Your task to perform on an android device: stop showing notifications on the lock screen Image 0: 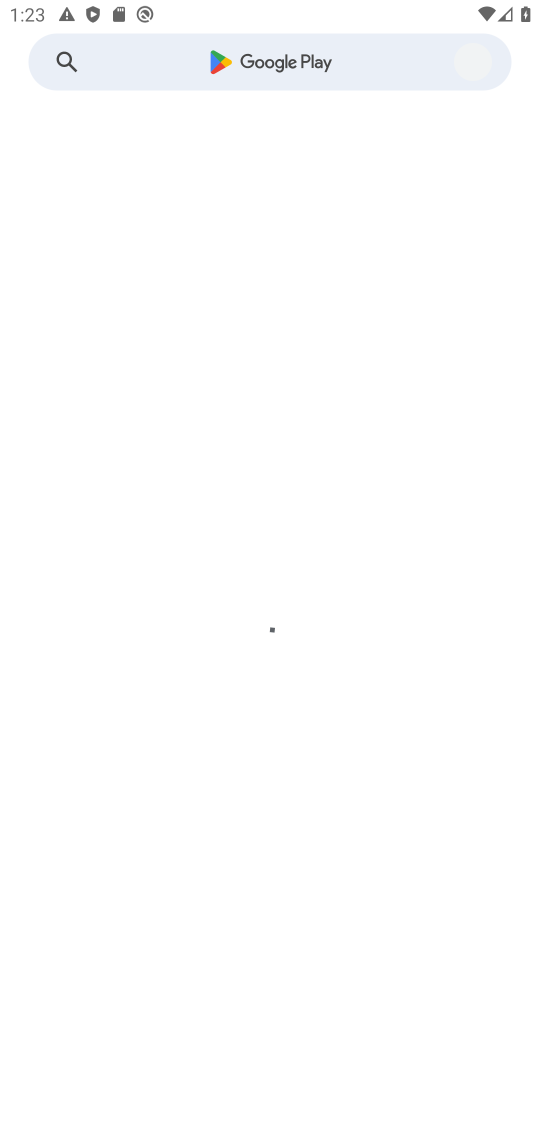
Step 0: press home button
Your task to perform on an android device: stop showing notifications on the lock screen Image 1: 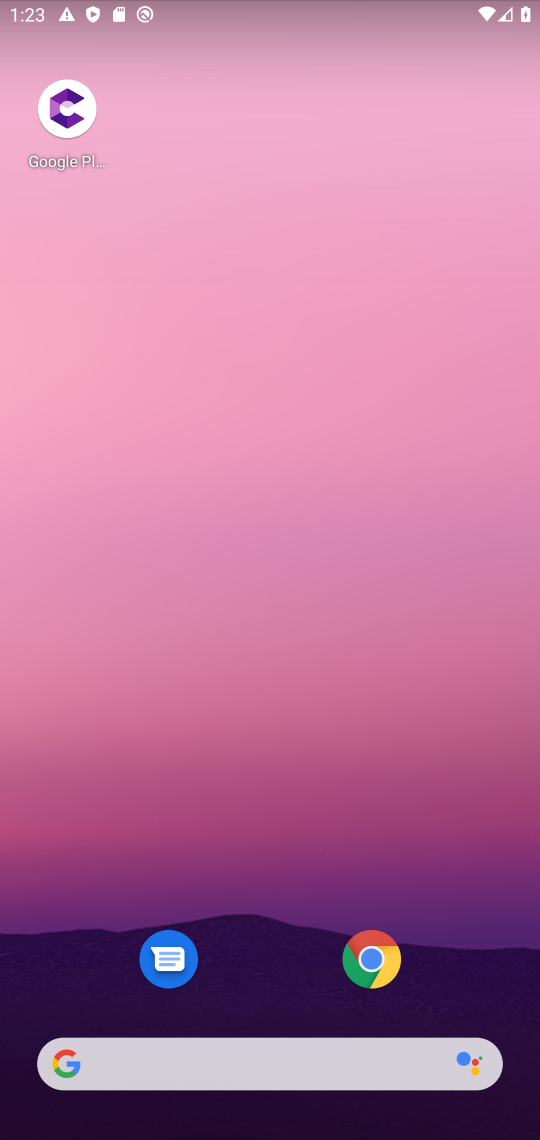
Step 1: click (292, 511)
Your task to perform on an android device: stop showing notifications on the lock screen Image 2: 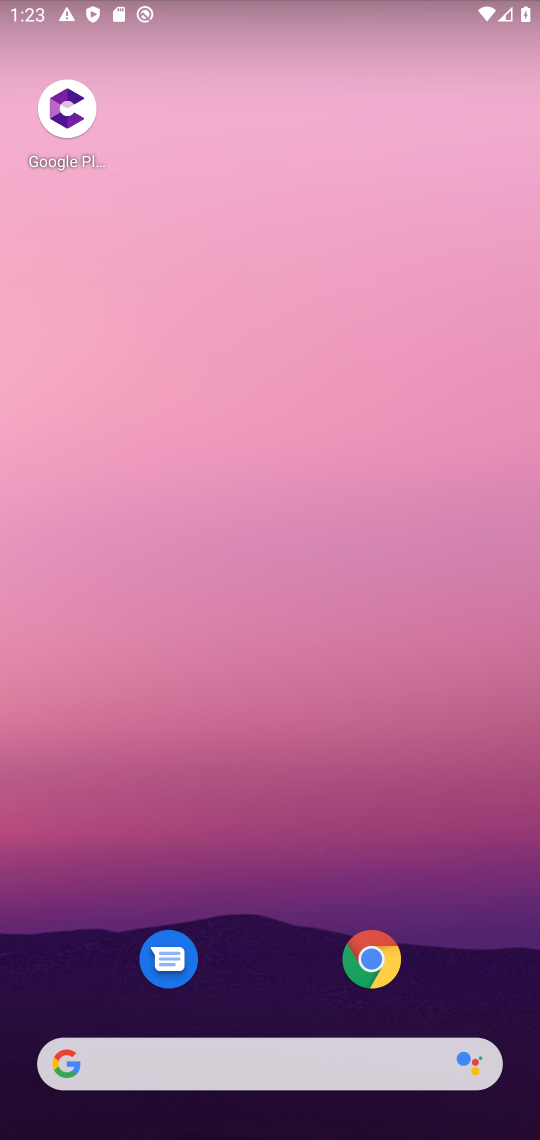
Step 2: click (189, 637)
Your task to perform on an android device: stop showing notifications on the lock screen Image 3: 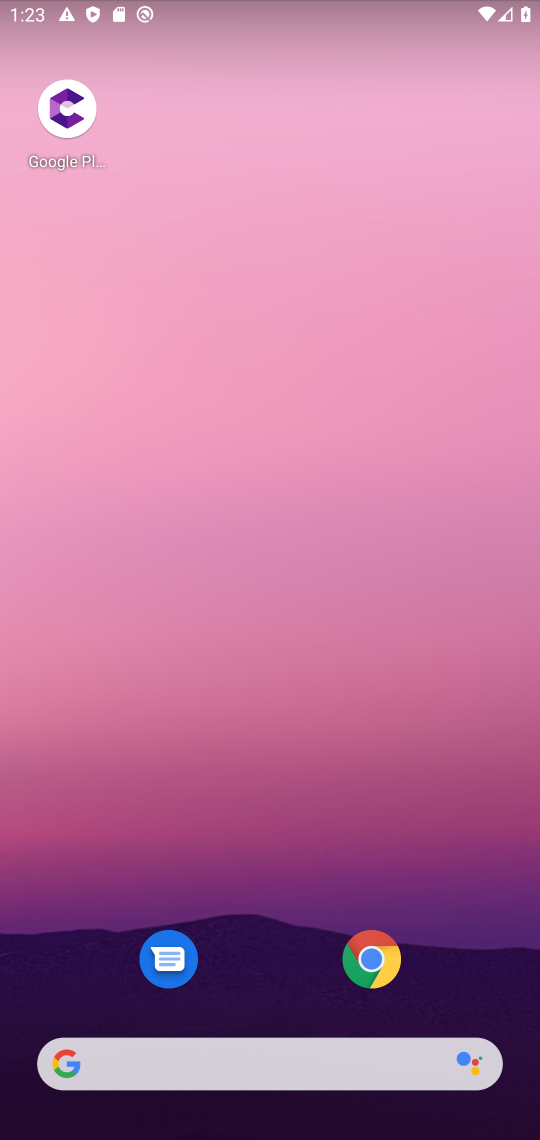
Step 3: click (267, 15)
Your task to perform on an android device: stop showing notifications on the lock screen Image 4: 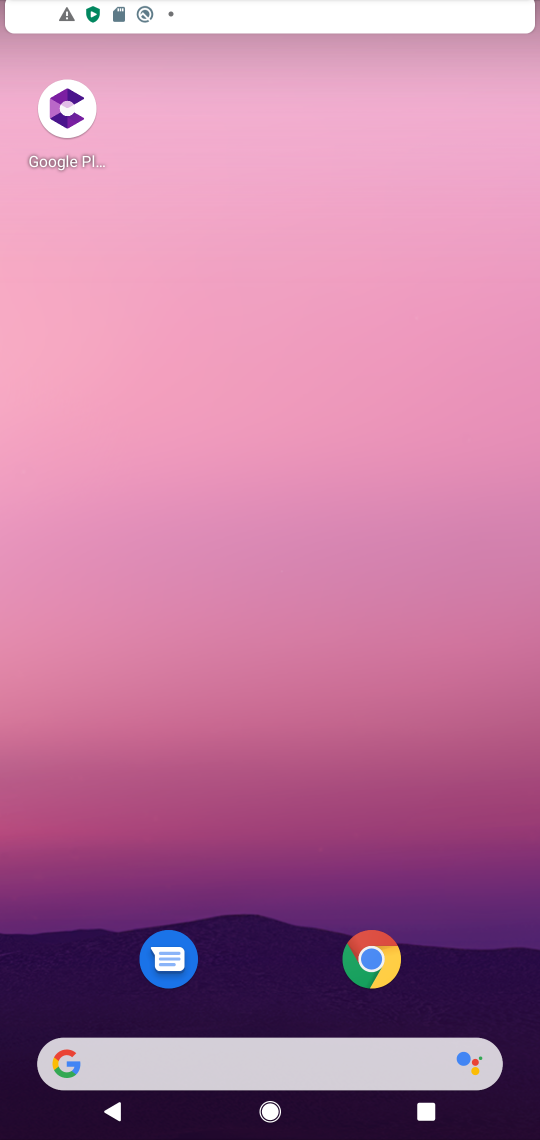
Step 4: drag from (274, 1042) to (208, 279)
Your task to perform on an android device: stop showing notifications on the lock screen Image 5: 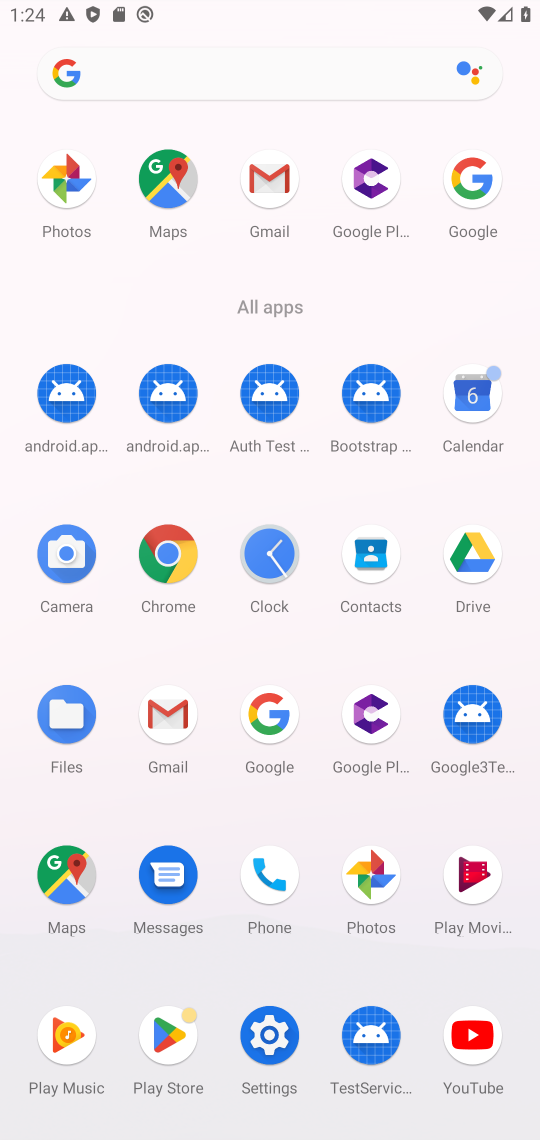
Step 5: click (271, 1043)
Your task to perform on an android device: stop showing notifications on the lock screen Image 6: 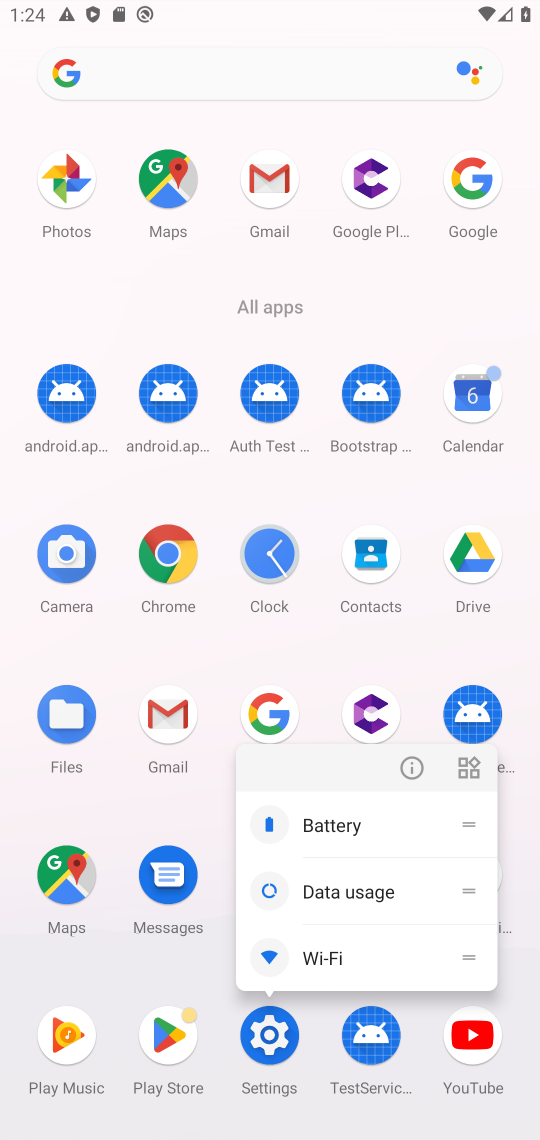
Step 6: click (271, 1043)
Your task to perform on an android device: stop showing notifications on the lock screen Image 7: 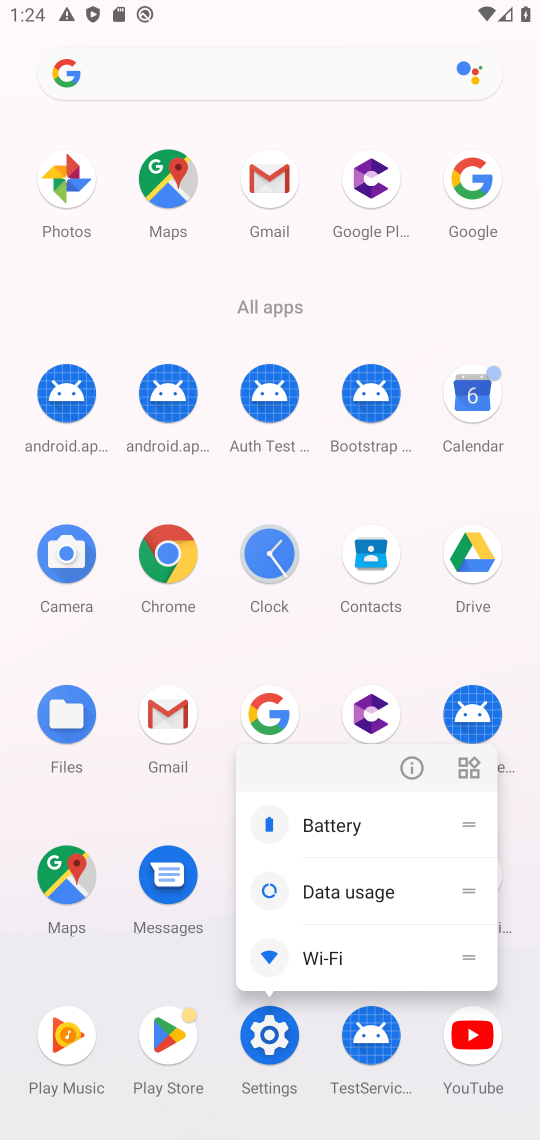
Step 7: click (285, 1039)
Your task to perform on an android device: stop showing notifications on the lock screen Image 8: 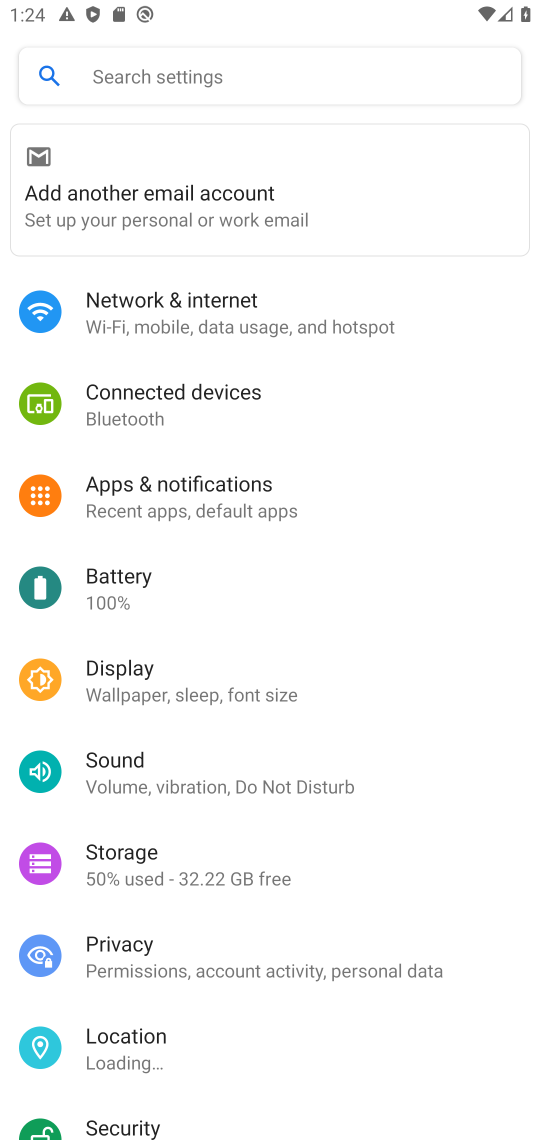
Step 8: click (109, 950)
Your task to perform on an android device: stop showing notifications on the lock screen Image 9: 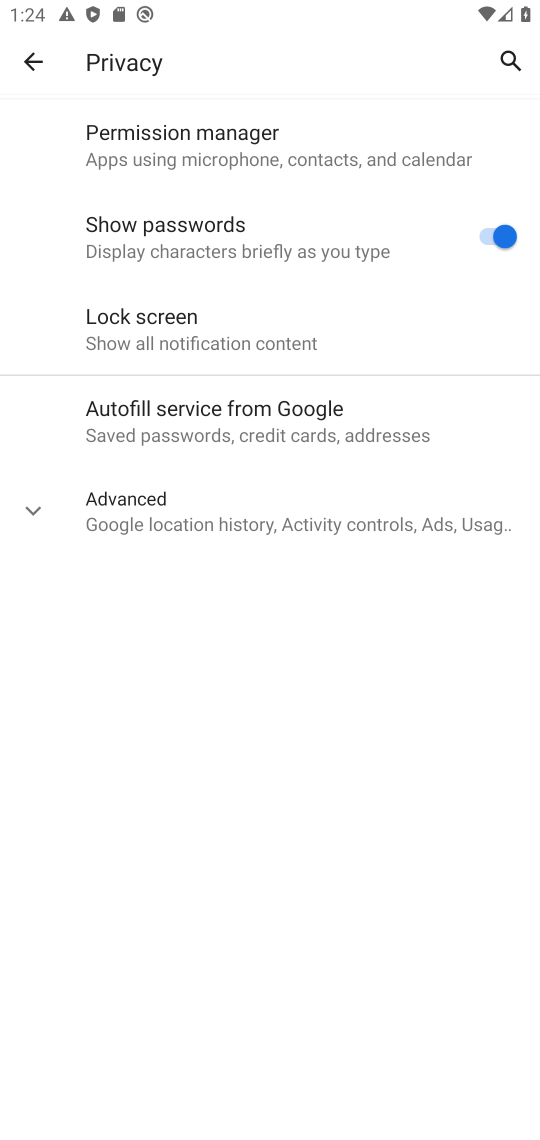
Step 9: click (157, 323)
Your task to perform on an android device: stop showing notifications on the lock screen Image 10: 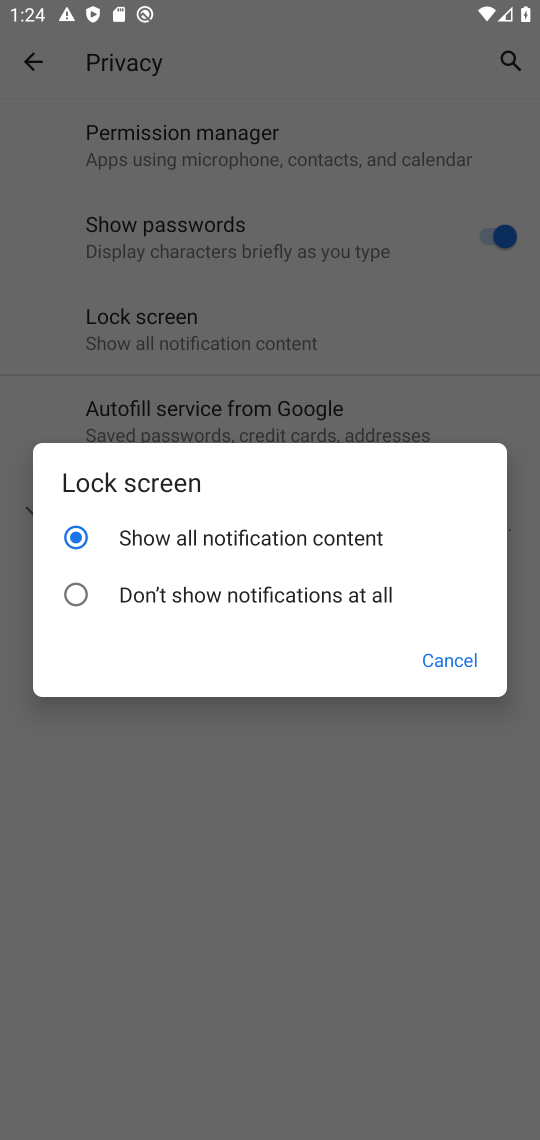
Step 10: click (203, 593)
Your task to perform on an android device: stop showing notifications on the lock screen Image 11: 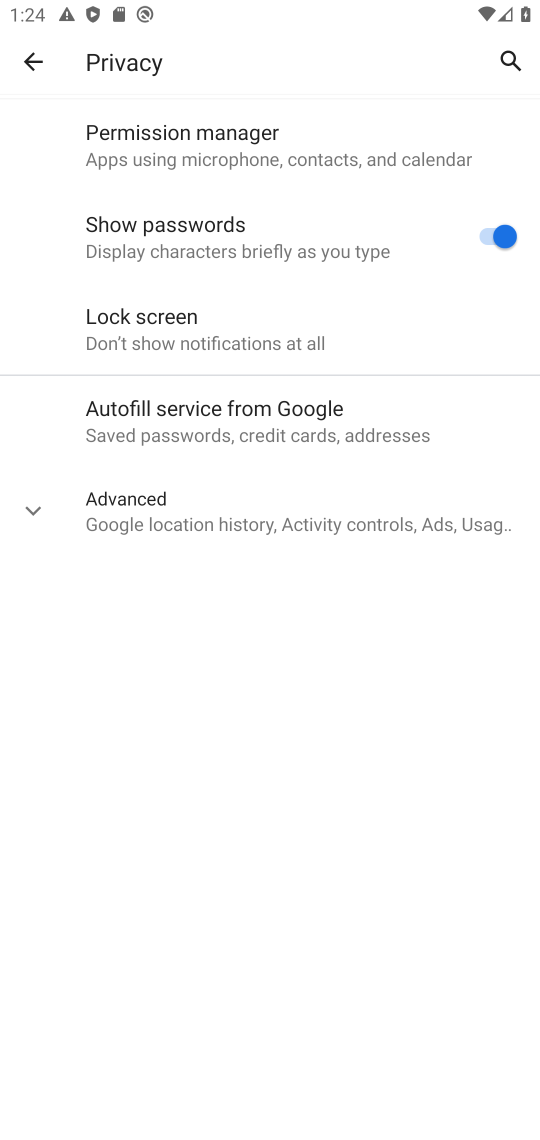
Step 11: task complete